Your task to perform on an android device: toggle notifications settings in the gmail app Image 0: 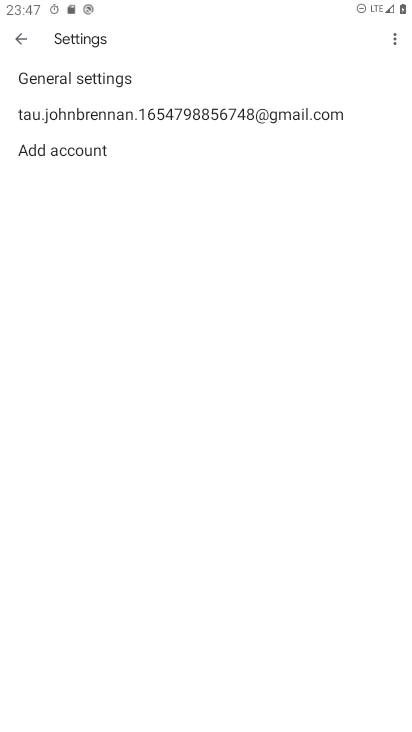
Step 0: press home button
Your task to perform on an android device: toggle notifications settings in the gmail app Image 1: 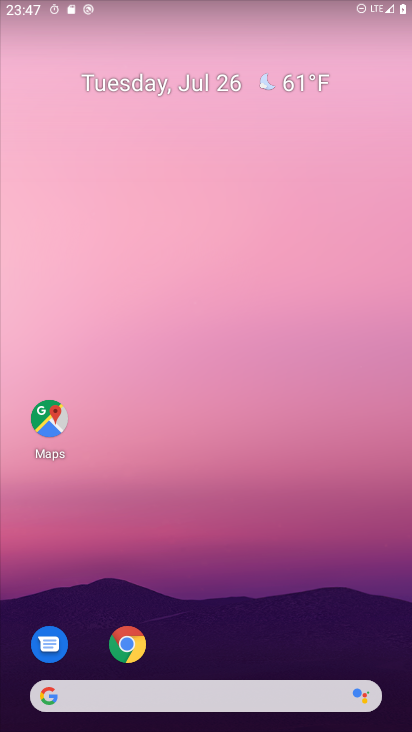
Step 1: drag from (201, 647) to (177, 5)
Your task to perform on an android device: toggle notifications settings in the gmail app Image 2: 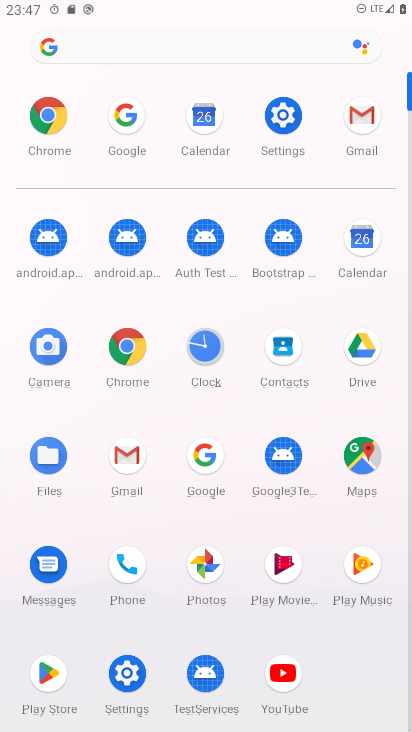
Step 2: click (370, 110)
Your task to perform on an android device: toggle notifications settings in the gmail app Image 3: 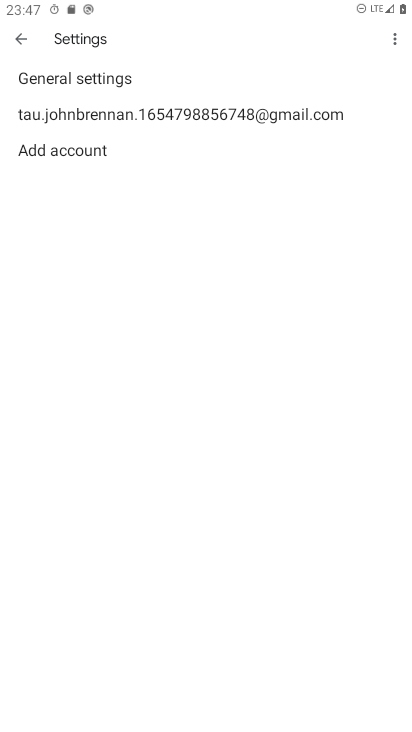
Step 3: click (96, 78)
Your task to perform on an android device: toggle notifications settings in the gmail app Image 4: 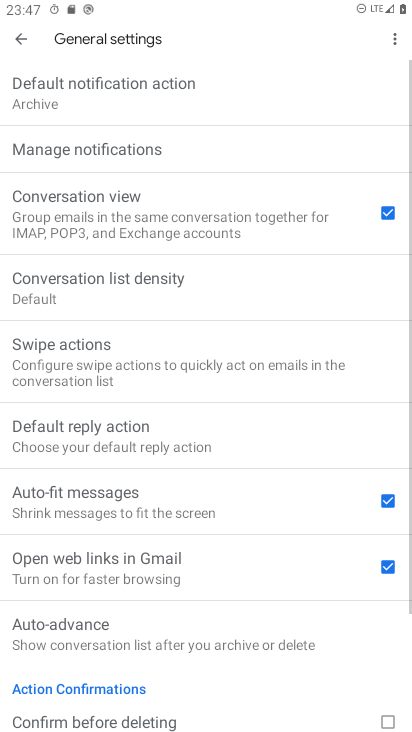
Step 4: click (98, 151)
Your task to perform on an android device: toggle notifications settings in the gmail app Image 5: 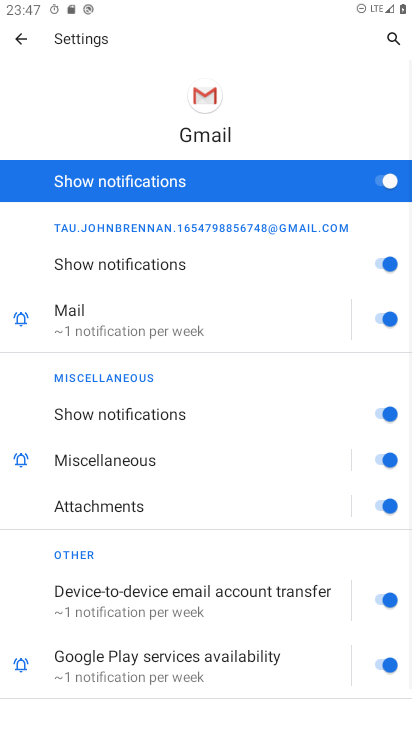
Step 5: click (394, 191)
Your task to perform on an android device: toggle notifications settings in the gmail app Image 6: 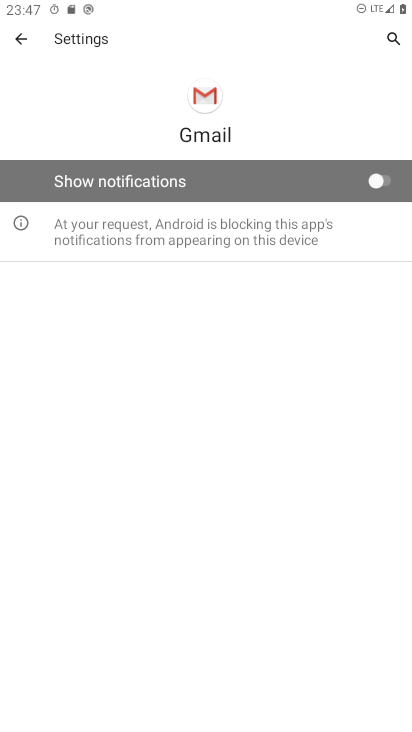
Step 6: task complete